Your task to perform on an android device: Open settings Image 0: 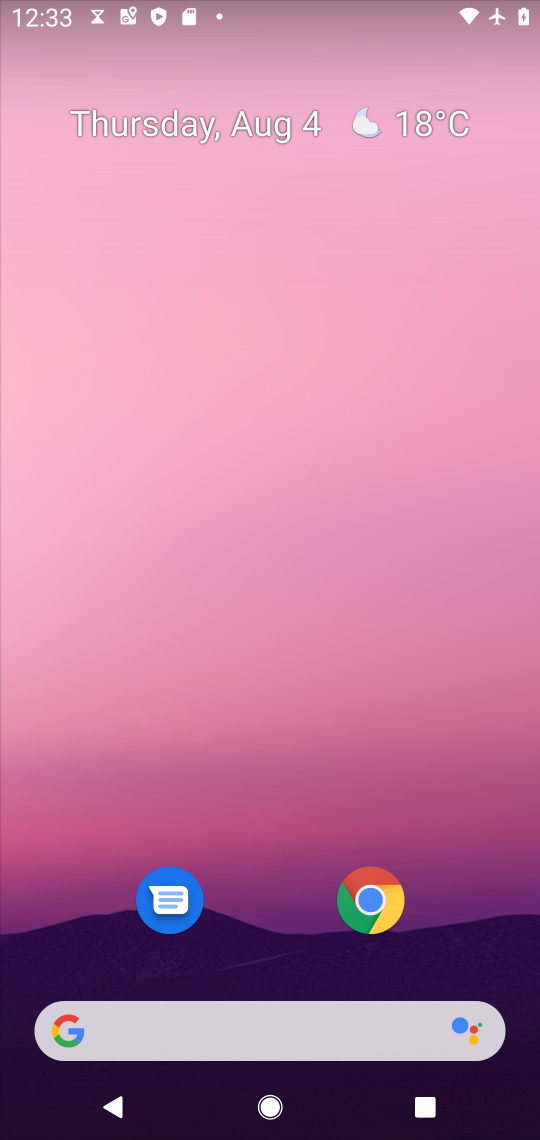
Step 0: drag from (299, 888) to (211, 289)
Your task to perform on an android device: Open settings Image 1: 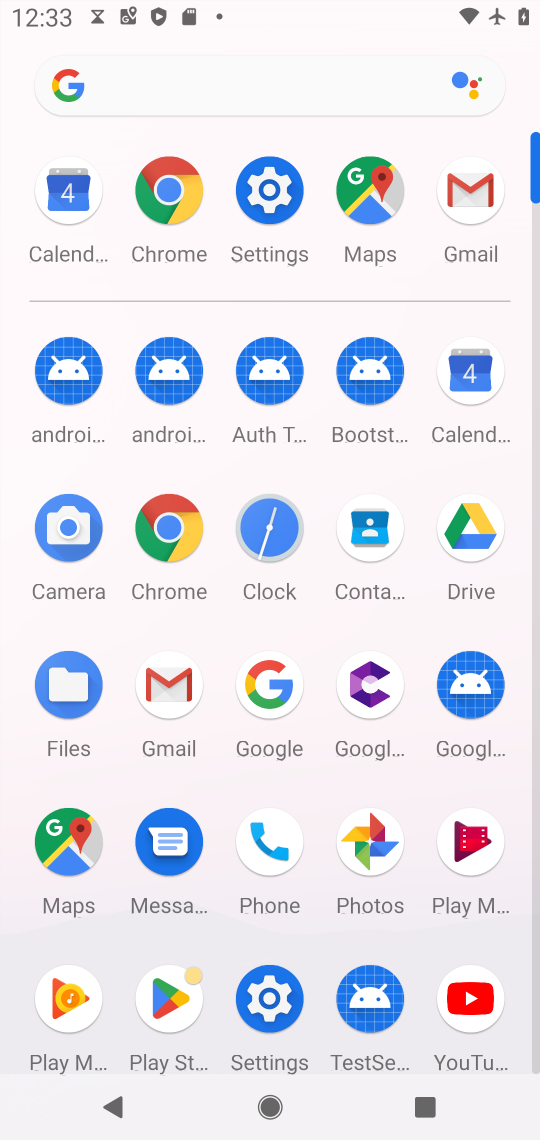
Step 1: click (259, 198)
Your task to perform on an android device: Open settings Image 2: 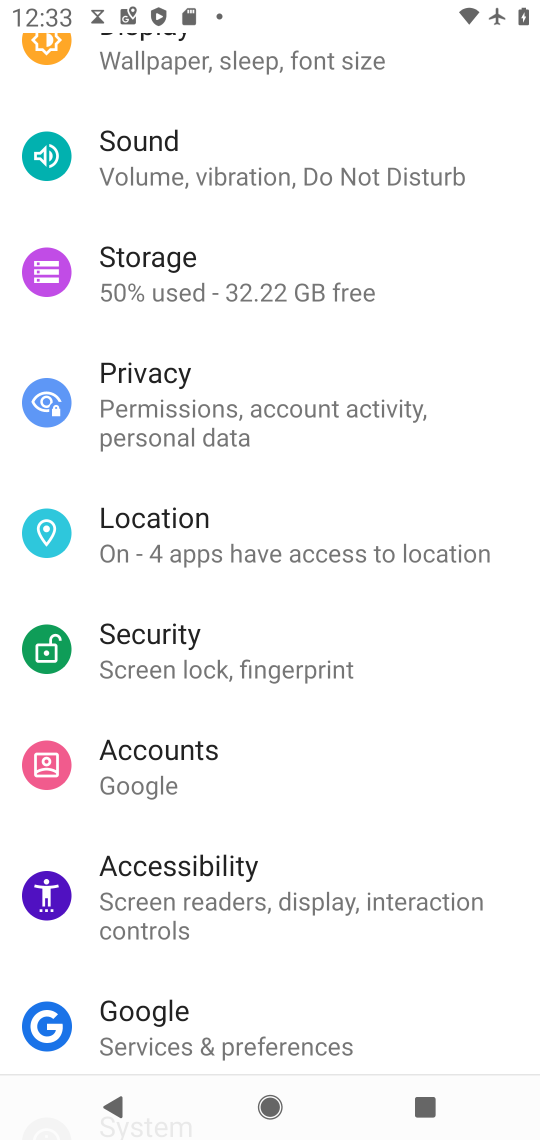
Step 2: task complete